Your task to perform on an android device: turn off notifications in google photos Image 0: 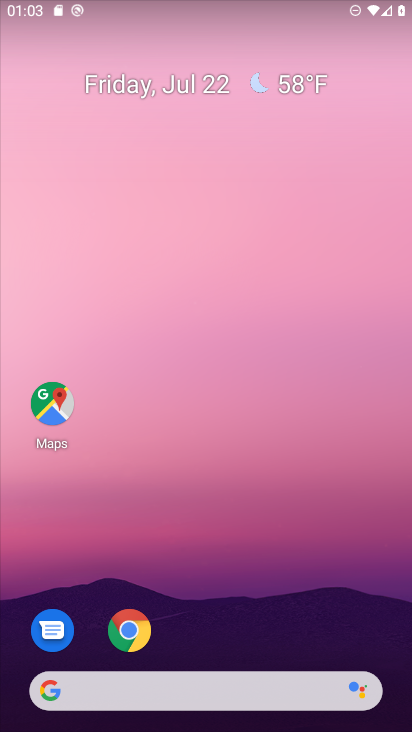
Step 0: drag from (246, 638) to (329, 18)
Your task to perform on an android device: turn off notifications in google photos Image 1: 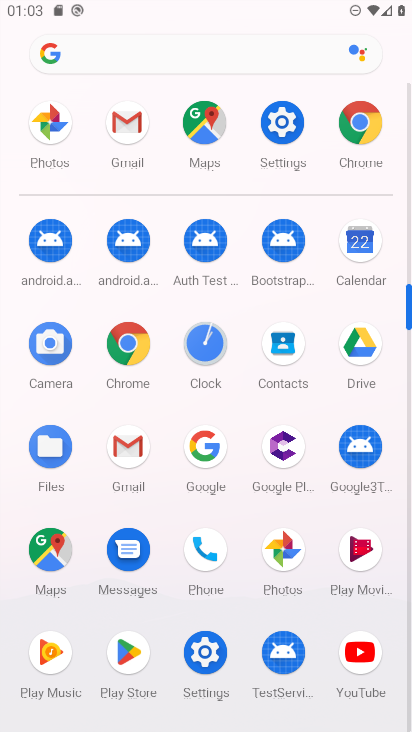
Step 1: click (287, 555)
Your task to perform on an android device: turn off notifications in google photos Image 2: 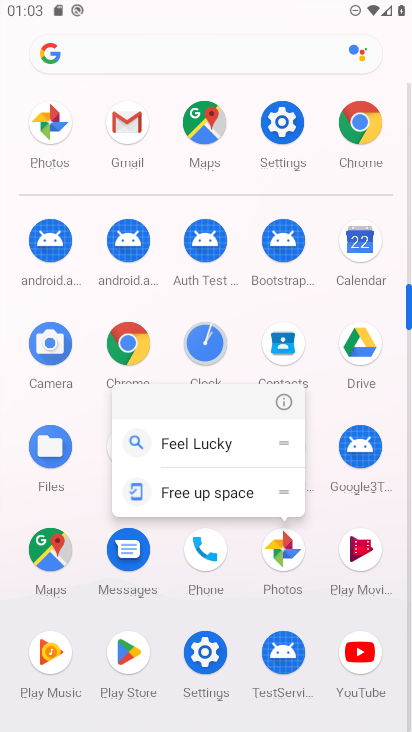
Step 2: click (278, 397)
Your task to perform on an android device: turn off notifications in google photos Image 3: 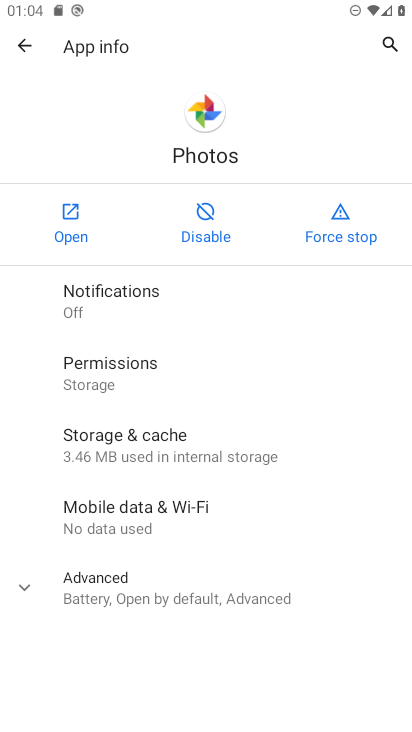
Step 3: click (112, 285)
Your task to perform on an android device: turn off notifications in google photos Image 4: 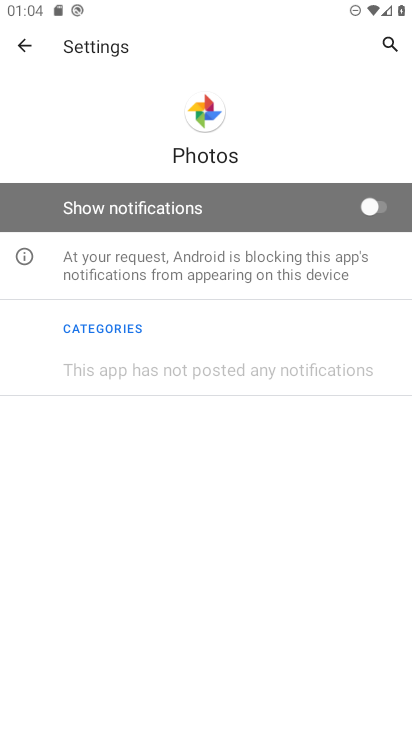
Step 4: task complete